Your task to perform on an android device: Open the Play Movies app and select the watchlist tab. Image 0: 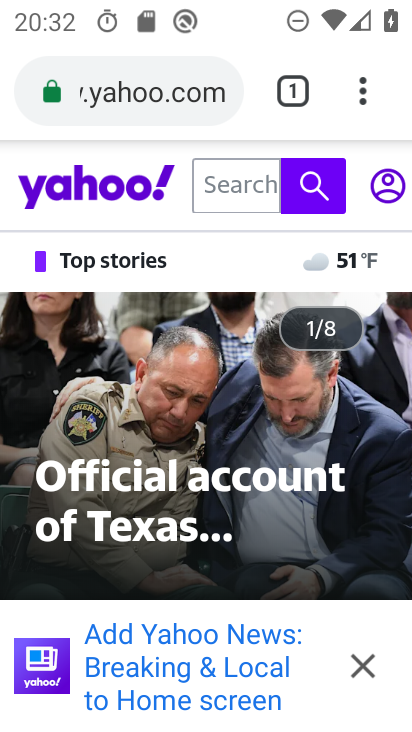
Step 0: press home button
Your task to perform on an android device: Open the Play Movies app and select the watchlist tab. Image 1: 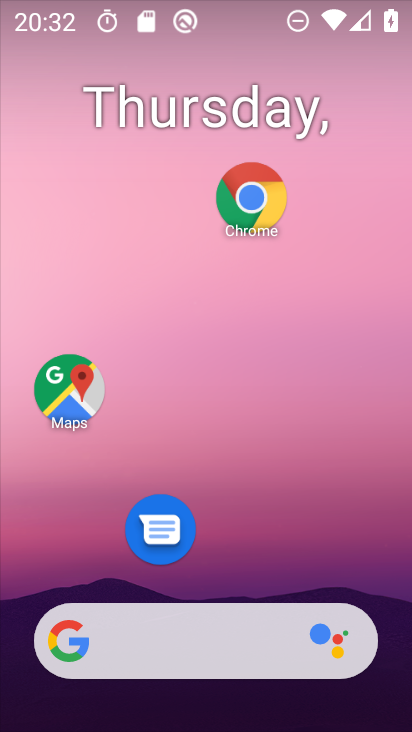
Step 1: drag from (246, 552) to (223, 32)
Your task to perform on an android device: Open the Play Movies app and select the watchlist tab. Image 2: 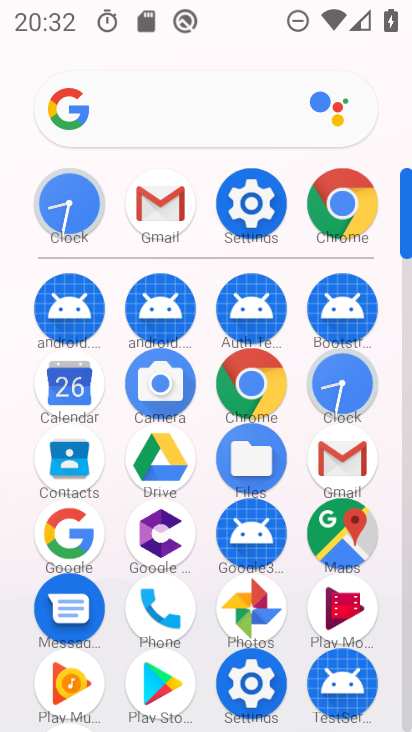
Step 2: click (347, 611)
Your task to perform on an android device: Open the Play Movies app and select the watchlist tab. Image 3: 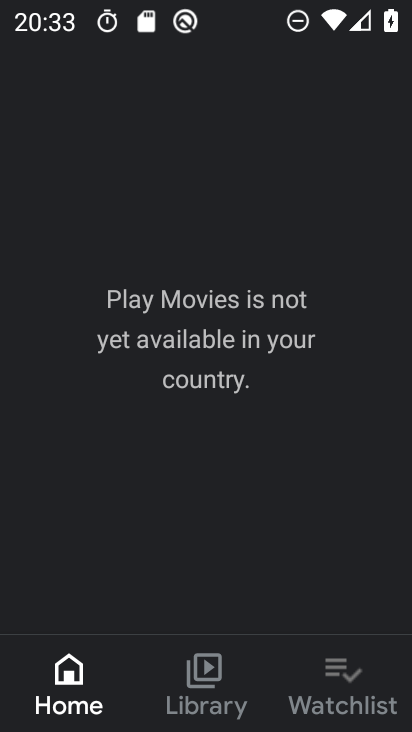
Step 3: click (348, 693)
Your task to perform on an android device: Open the Play Movies app and select the watchlist tab. Image 4: 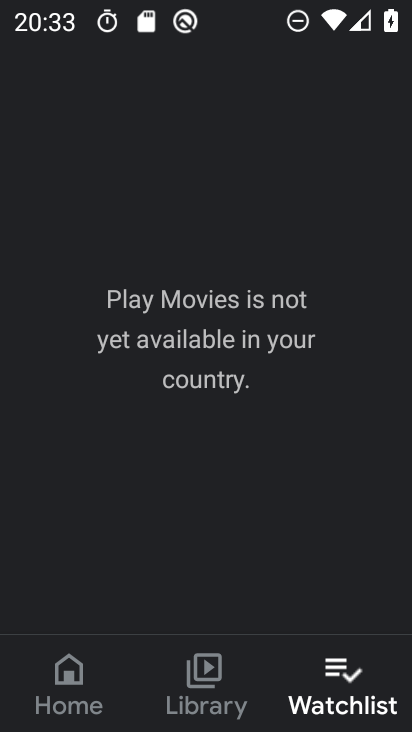
Step 4: task complete